Your task to perform on an android device: install app "Truecaller" Image 0: 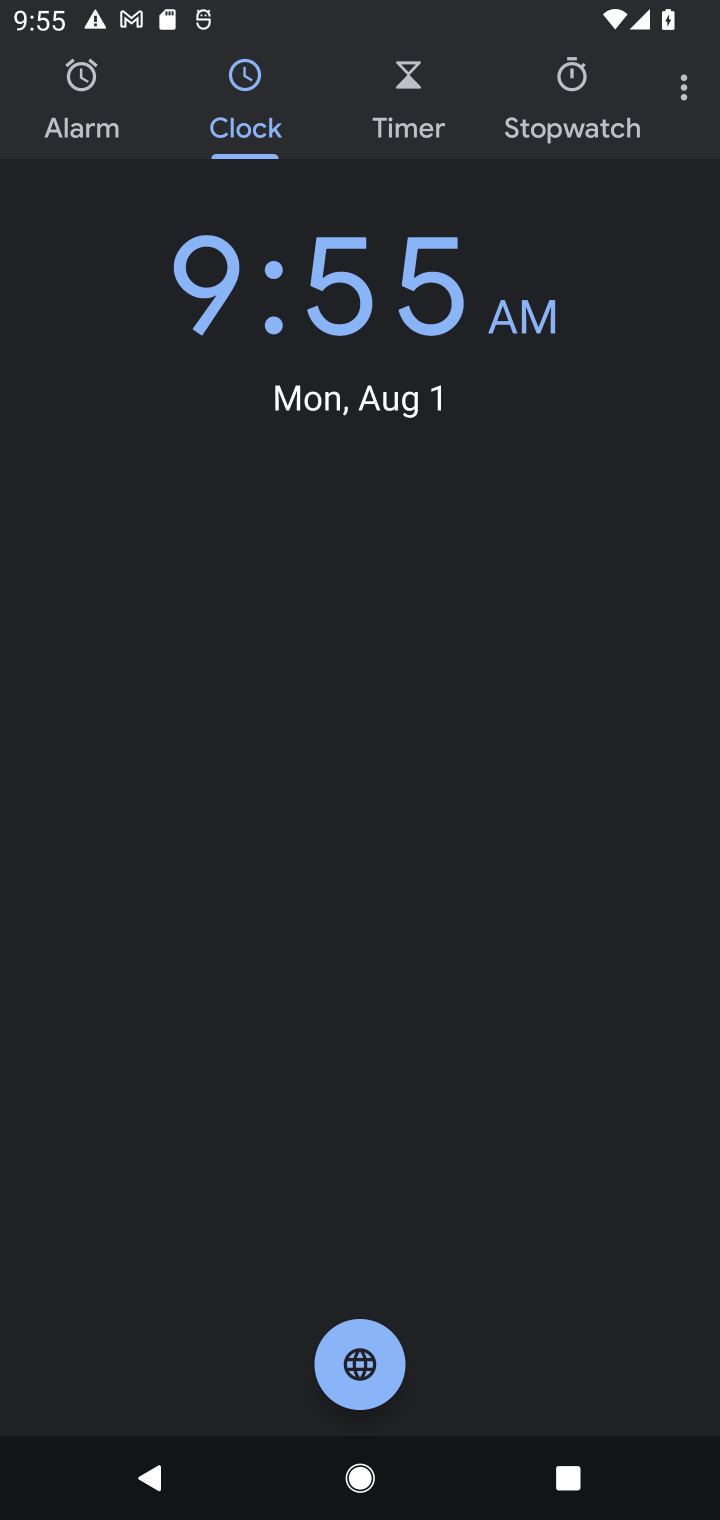
Step 0: press home button
Your task to perform on an android device: install app "Truecaller" Image 1: 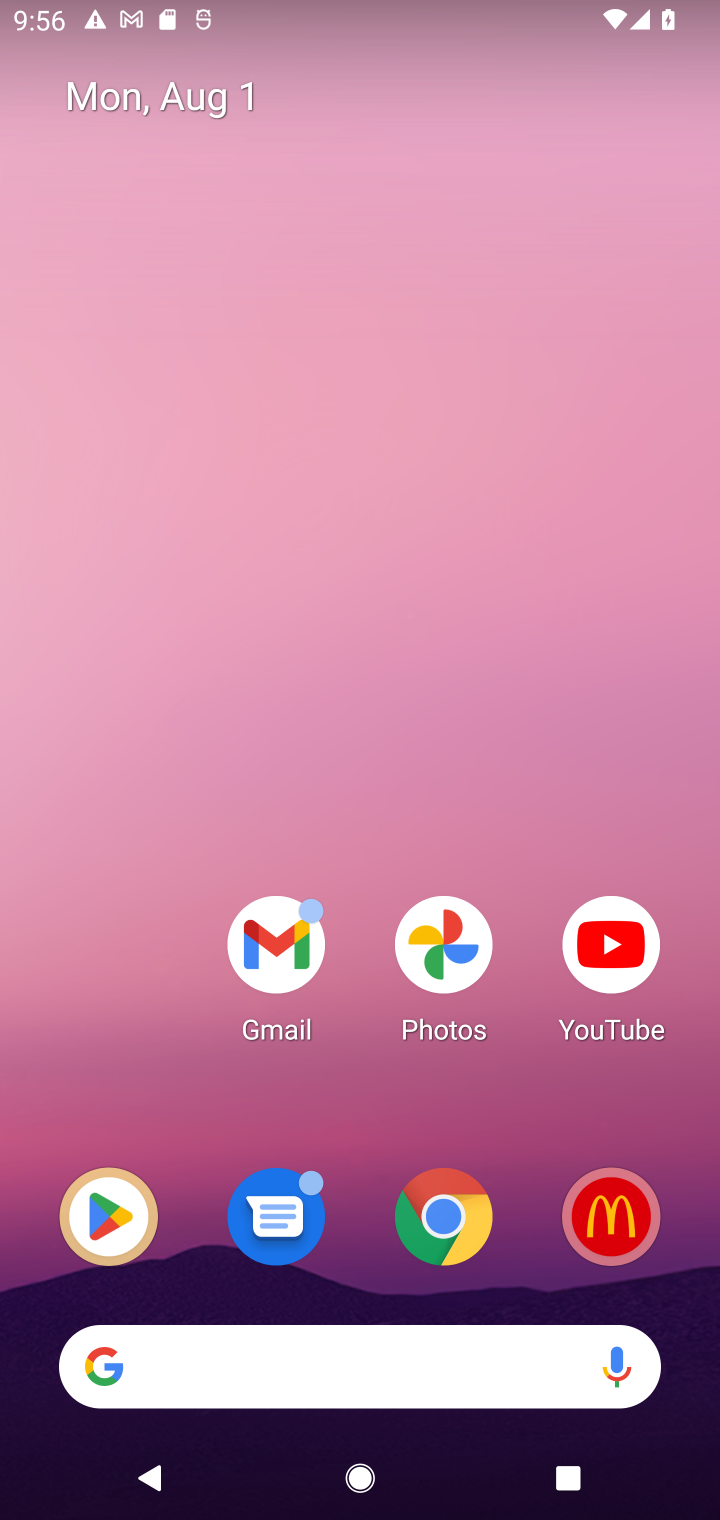
Step 1: click (109, 1209)
Your task to perform on an android device: install app "Truecaller" Image 2: 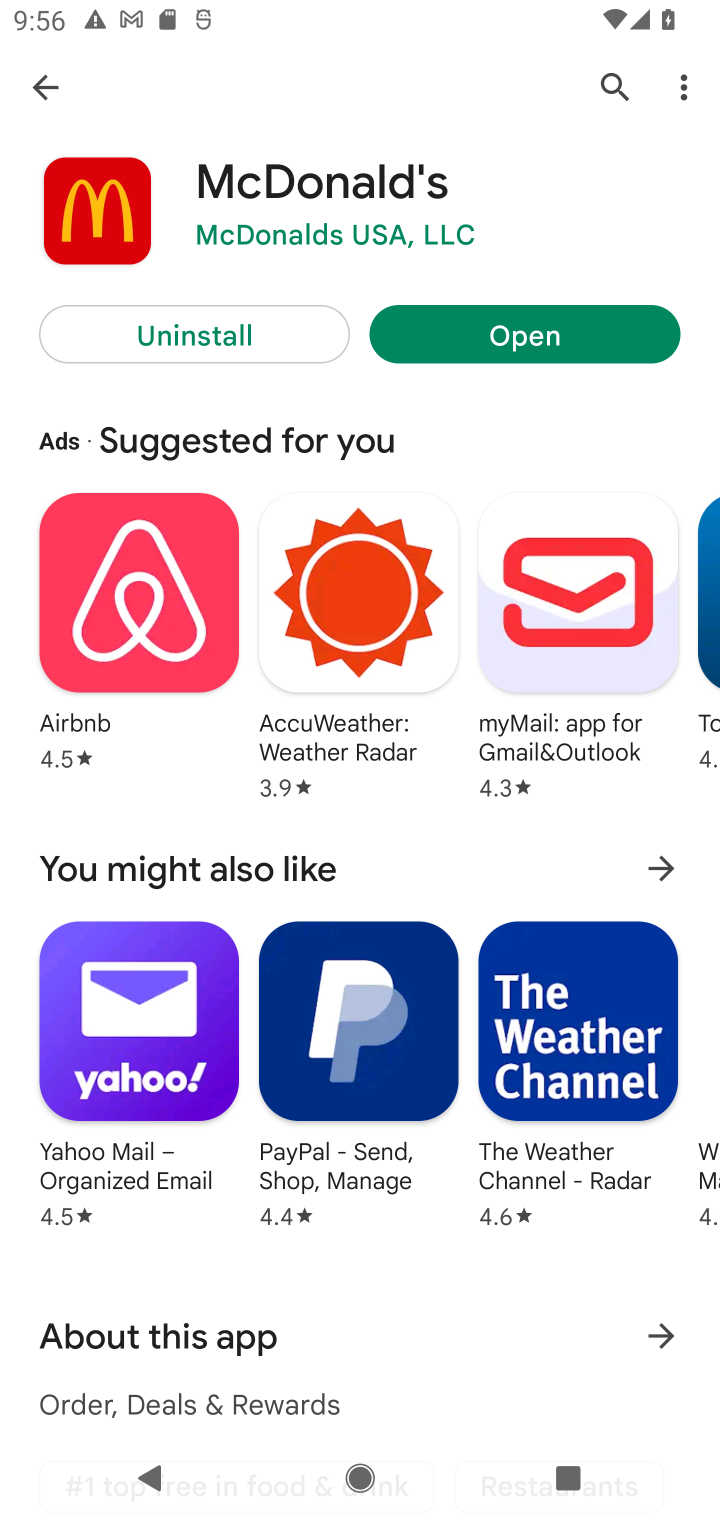
Step 2: click (601, 82)
Your task to perform on an android device: install app "Truecaller" Image 3: 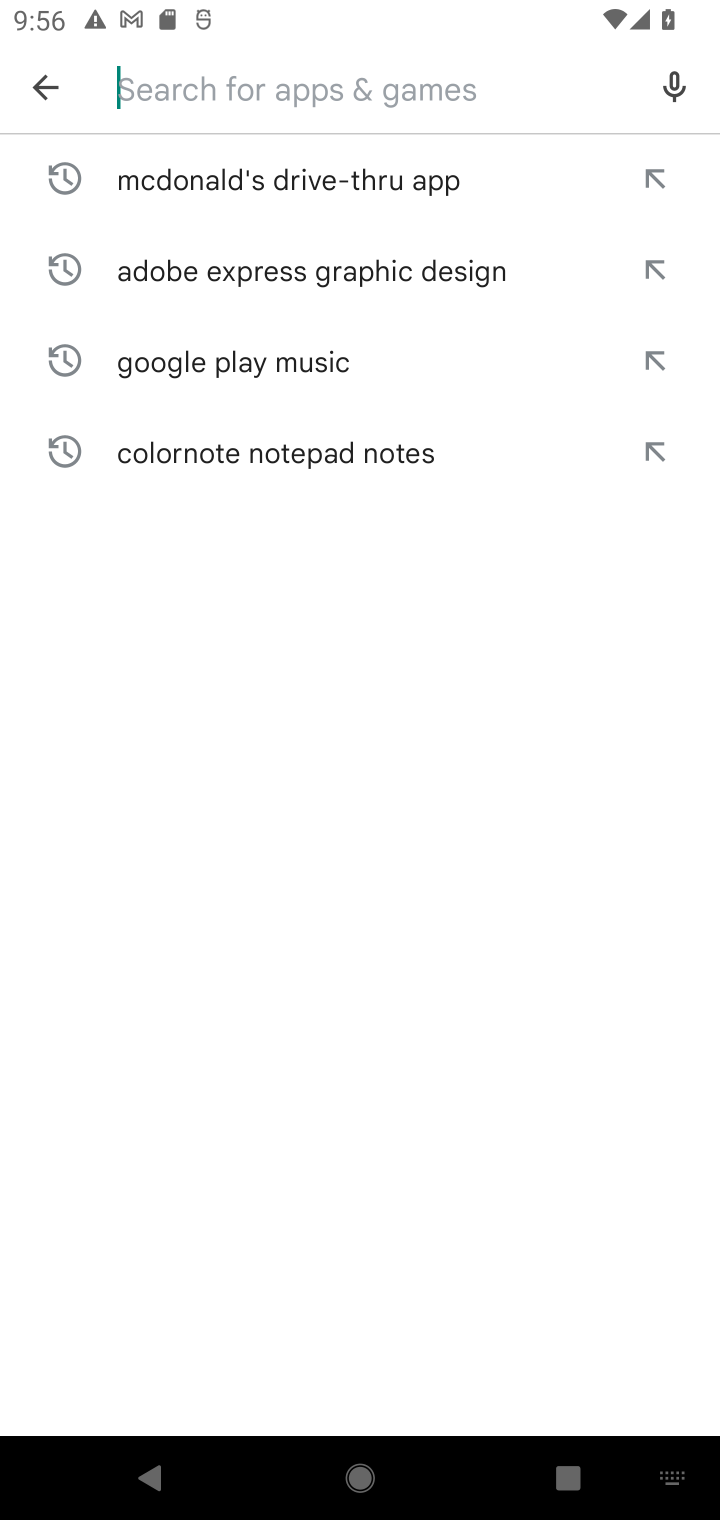
Step 3: type "Truecaller"
Your task to perform on an android device: install app "Truecaller" Image 4: 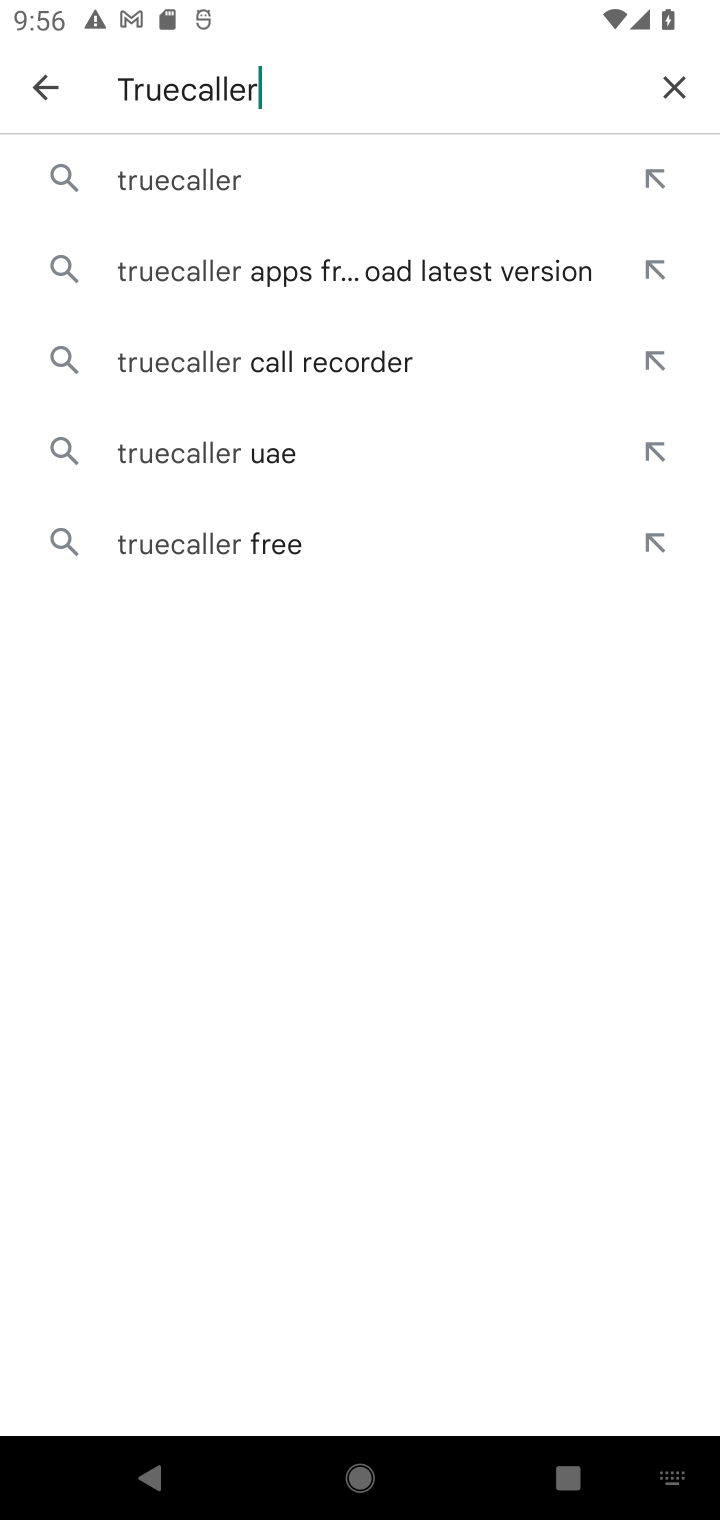
Step 4: click (135, 180)
Your task to perform on an android device: install app "Truecaller" Image 5: 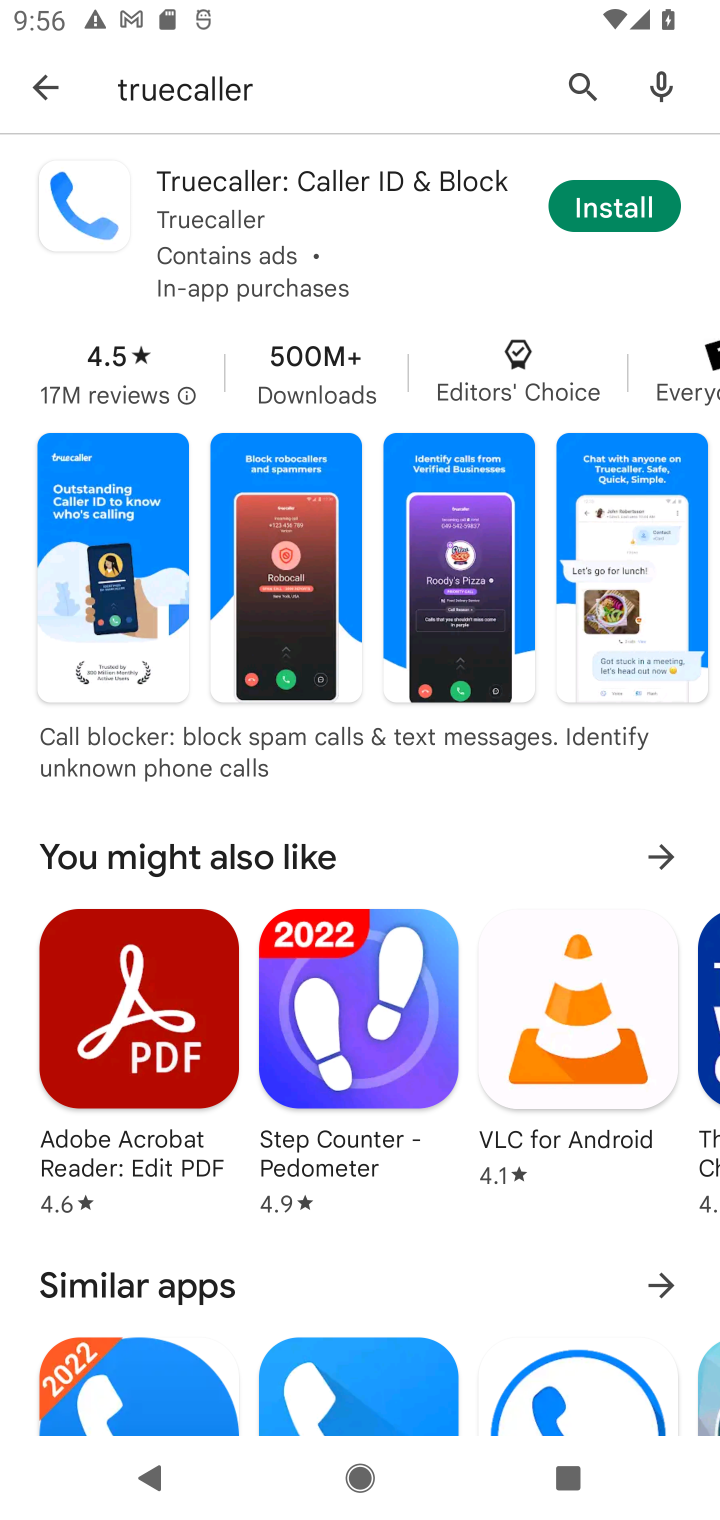
Step 5: click (665, 208)
Your task to perform on an android device: install app "Truecaller" Image 6: 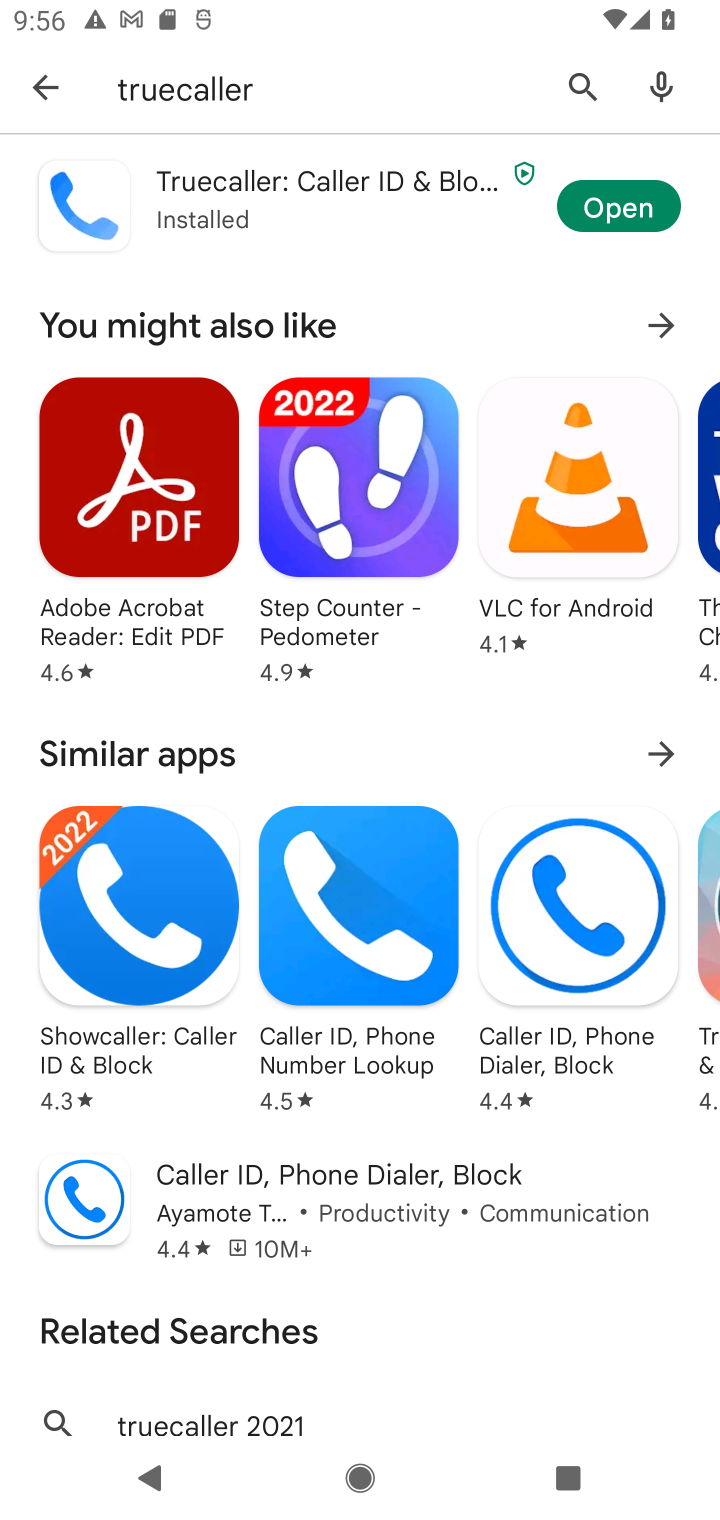
Step 6: task complete